Your task to perform on an android device: turn on notifications settings in the gmail app Image 0: 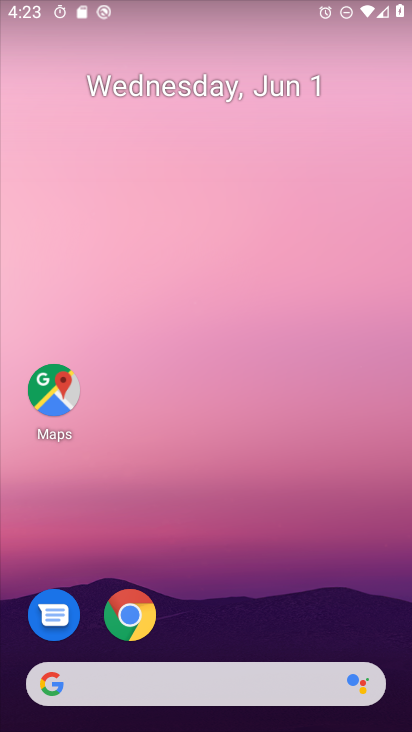
Step 0: drag from (266, 629) to (251, 194)
Your task to perform on an android device: turn on notifications settings in the gmail app Image 1: 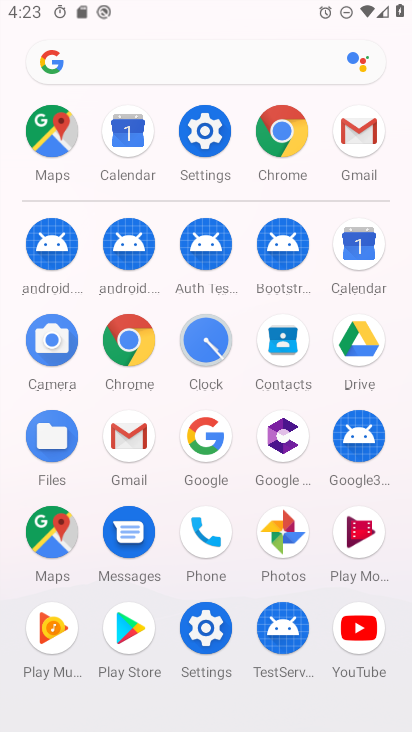
Step 1: click (139, 449)
Your task to perform on an android device: turn on notifications settings in the gmail app Image 2: 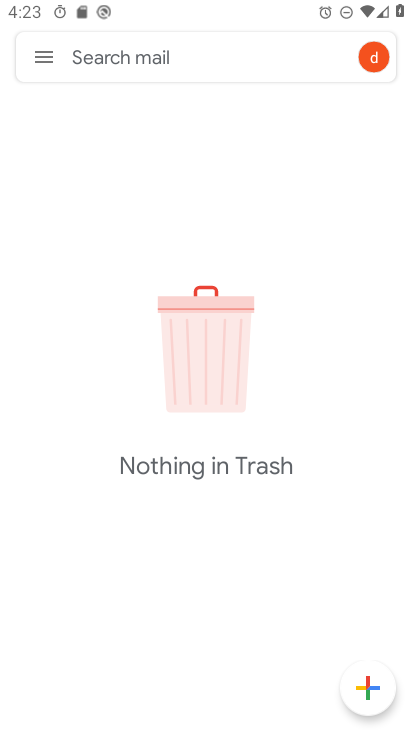
Step 2: click (44, 64)
Your task to perform on an android device: turn on notifications settings in the gmail app Image 3: 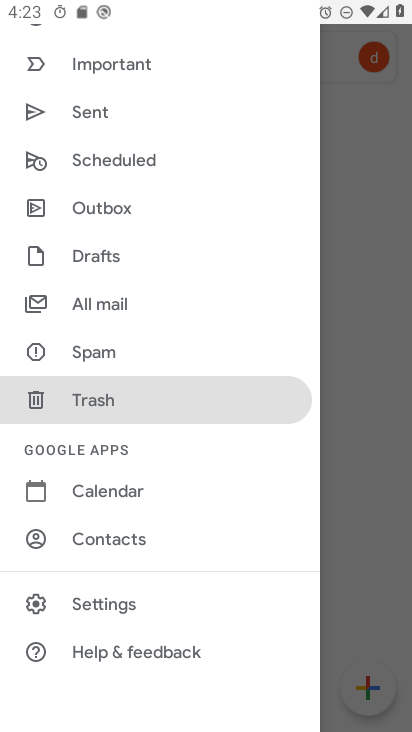
Step 3: click (116, 593)
Your task to perform on an android device: turn on notifications settings in the gmail app Image 4: 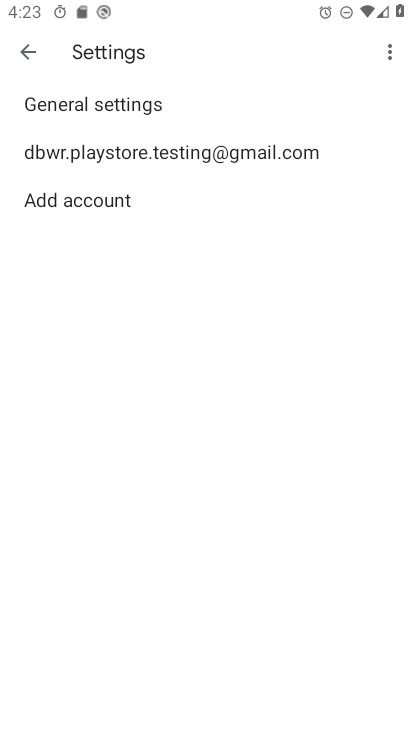
Step 4: click (150, 108)
Your task to perform on an android device: turn on notifications settings in the gmail app Image 5: 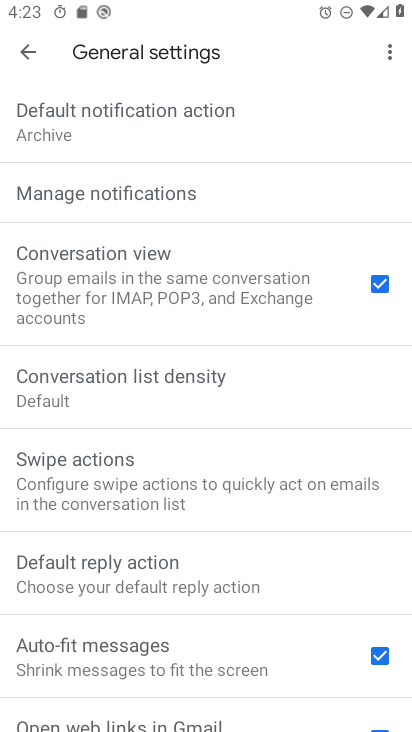
Step 5: drag from (275, 499) to (270, 196)
Your task to perform on an android device: turn on notifications settings in the gmail app Image 6: 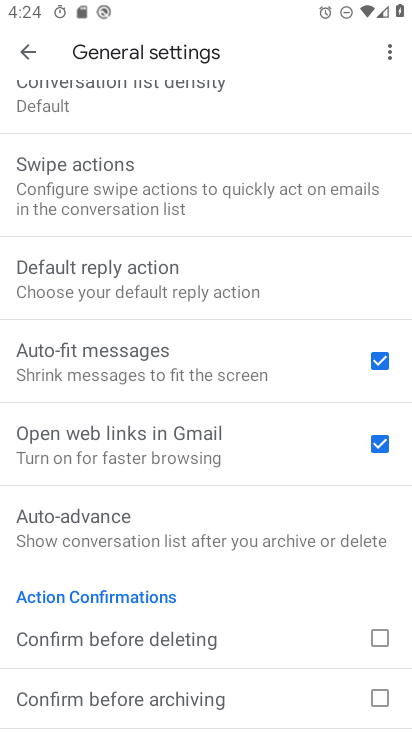
Step 6: drag from (272, 470) to (272, 151)
Your task to perform on an android device: turn on notifications settings in the gmail app Image 7: 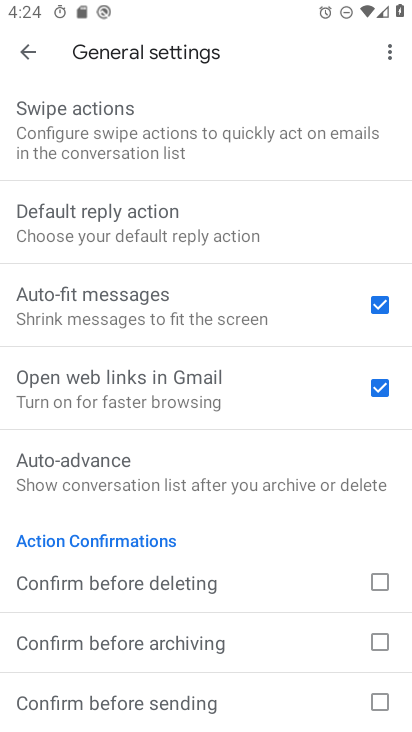
Step 7: drag from (264, 199) to (257, 467)
Your task to perform on an android device: turn on notifications settings in the gmail app Image 8: 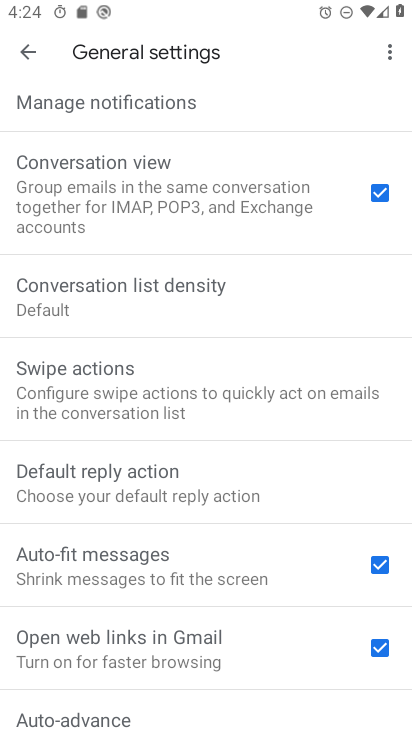
Step 8: drag from (260, 154) to (253, 550)
Your task to perform on an android device: turn on notifications settings in the gmail app Image 9: 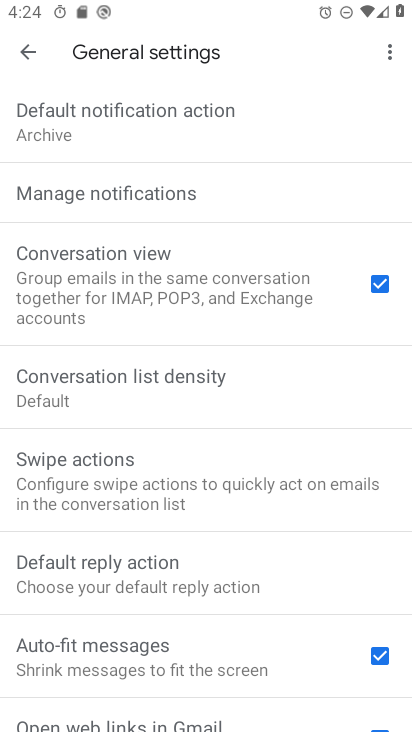
Step 9: click (193, 199)
Your task to perform on an android device: turn on notifications settings in the gmail app Image 10: 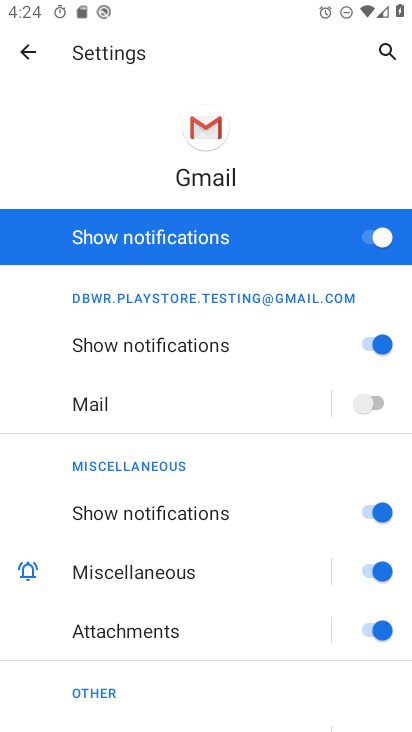
Step 10: click (370, 406)
Your task to perform on an android device: turn on notifications settings in the gmail app Image 11: 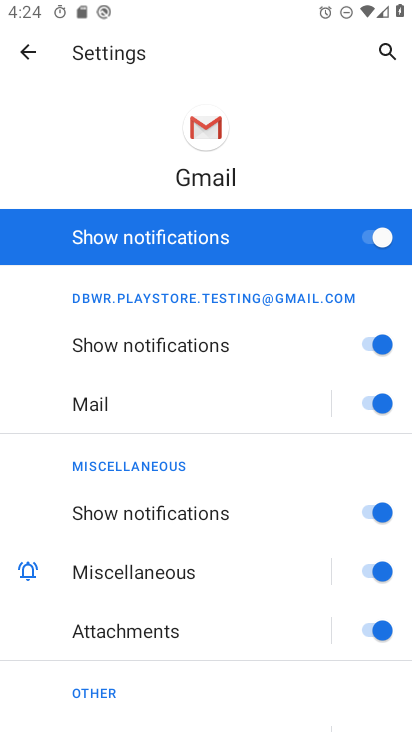
Step 11: task complete